Your task to perform on an android device: open app "Adobe Acrobat Reader" Image 0: 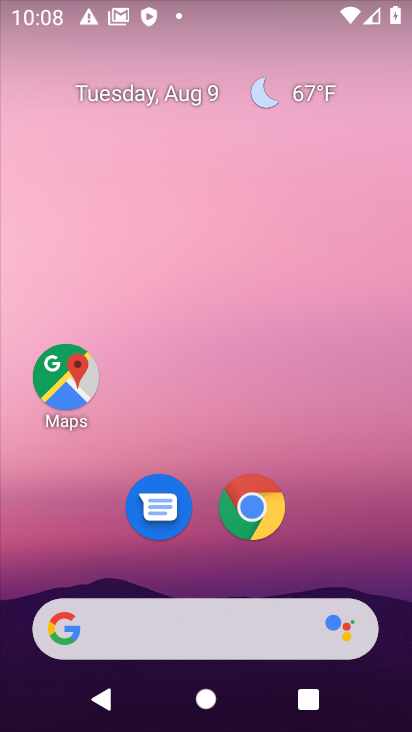
Step 0: drag from (236, 514) to (167, 13)
Your task to perform on an android device: open app "Adobe Acrobat Reader" Image 1: 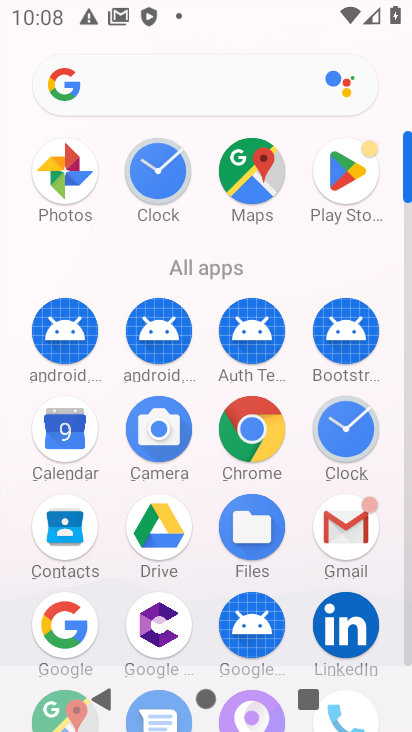
Step 1: click (342, 187)
Your task to perform on an android device: open app "Adobe Acrobat Reader" Image 2: 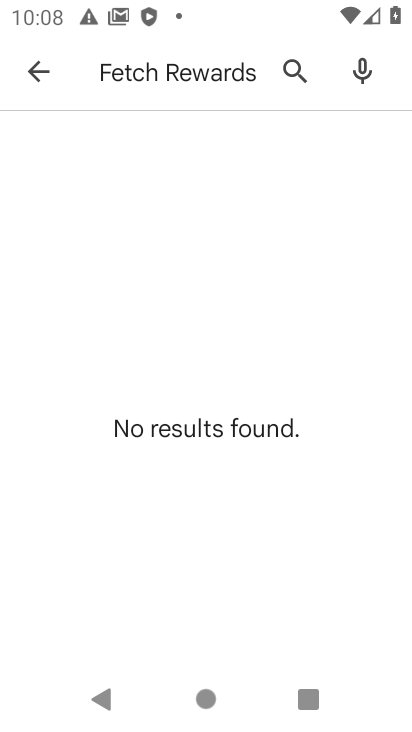
Step 2: click (34, 68)
Your task to perform on an android device: open app "Adobe Acrobat Reader" Image 3: 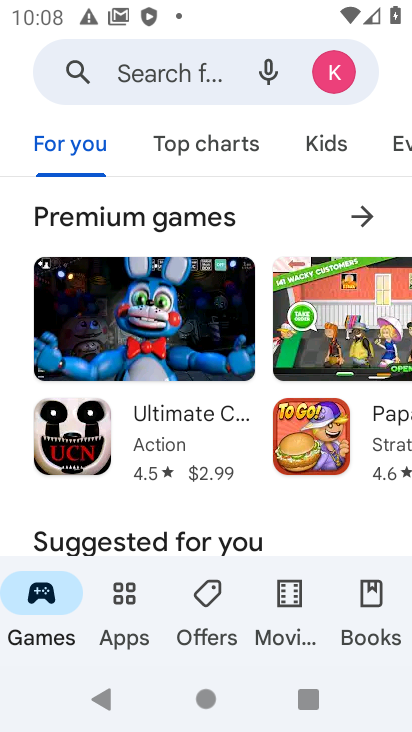
Step 3: click (149, 76)
Your task to perform on an android device: open app "Adobe Acrobat Reader" Image 4: 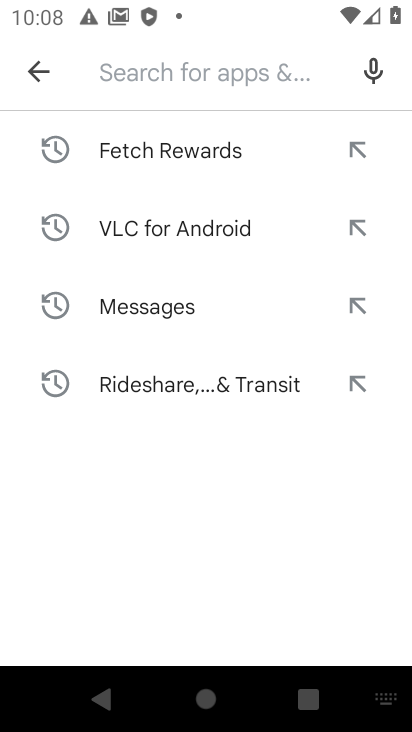
Step 4: type "Adobe Acrobat Reade"
Your task to perform on an android device: open app "Adobe Acrobat Reader" Image 5: 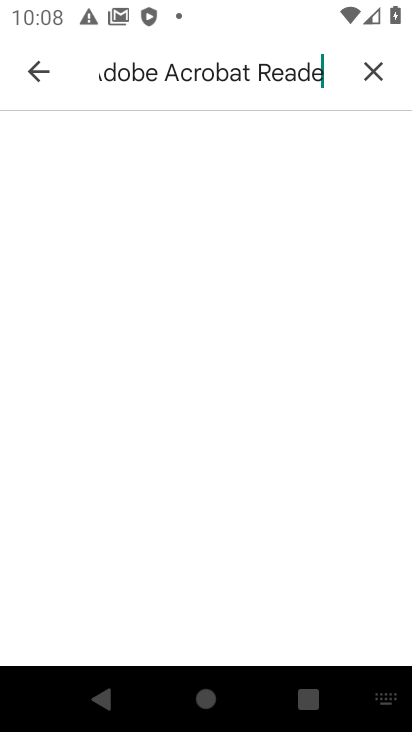
Step 5: press enter
Your task to perform on an android device: open app "Adobe Acrobat Reader" Image 6: 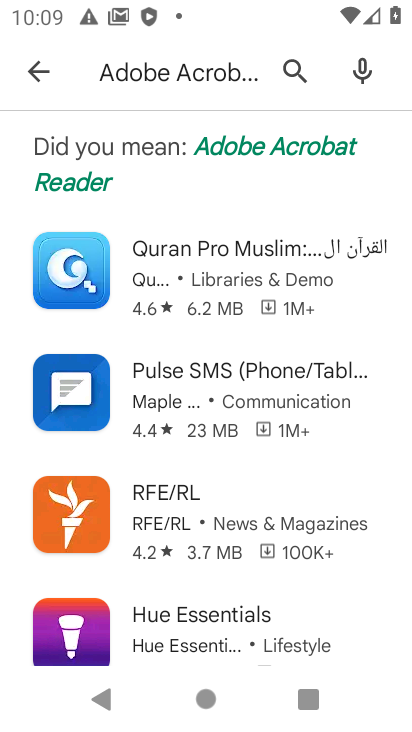
Step 6: task complete